Your task to perform on an android device: open chrome and create a bookmark for the current page Image 0: 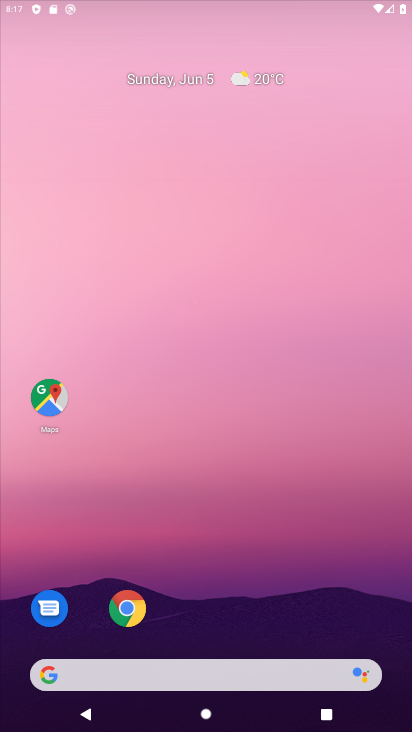
Step 0: press home button
Your task to perform on an android device: open chrome and create a bookmark for the current page Image 1: 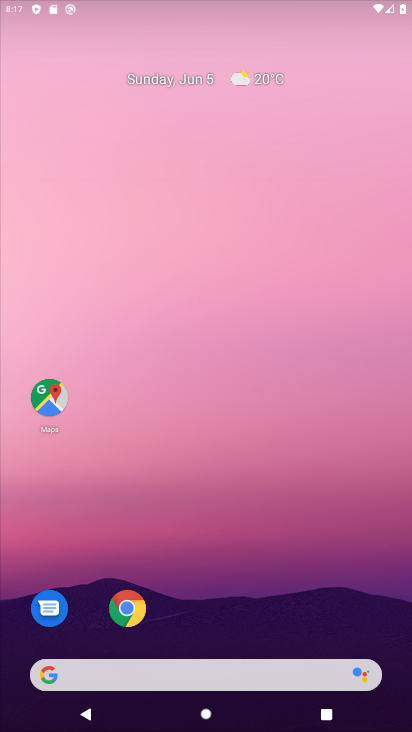
Step 1: click (296, 155)
Your task to perform on an android device: open chrome and create a bookmark for the current page Image 2: 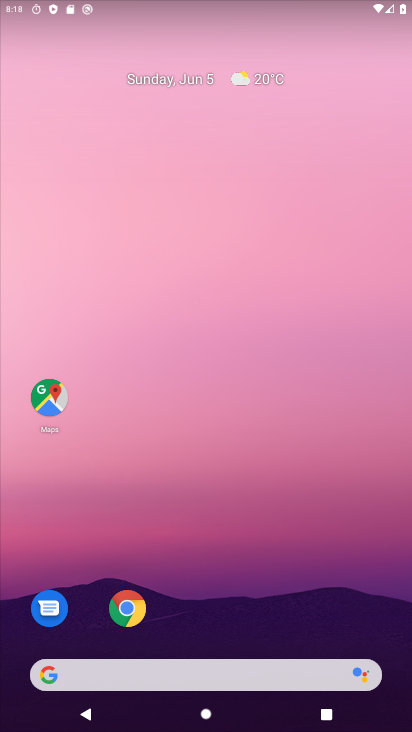
Step 2: drag from (369, 615) to (365, 97)
Your task to perform on an android device: open chrome and create a bookmark for the current page Image 3: 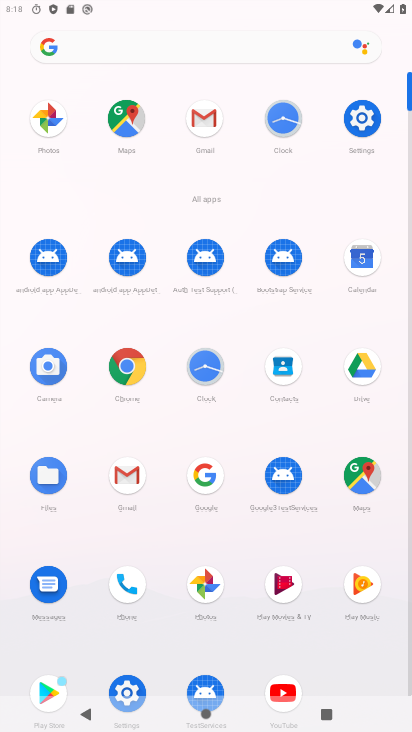
Step 3: click (127, 371)
Your task to perform on an android device: open chrome and create a bookmark for the current page Image 4: 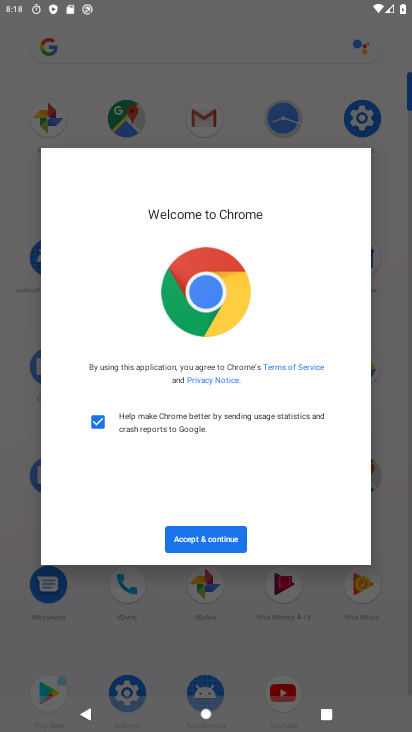
Step 4: click (191, 545)
Your task to perform on an android device: open chrome and create a bookmark for the current page Image 5: 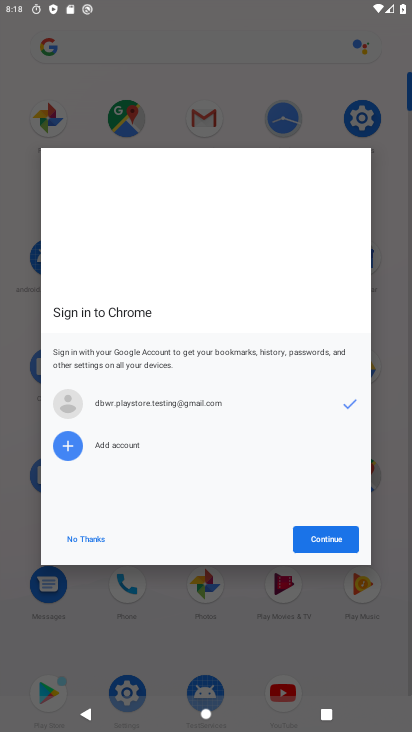
Step 5: click (328, 541)
Your task to perform on an android device: open chrome and create a bookmark for the current page Image 6: 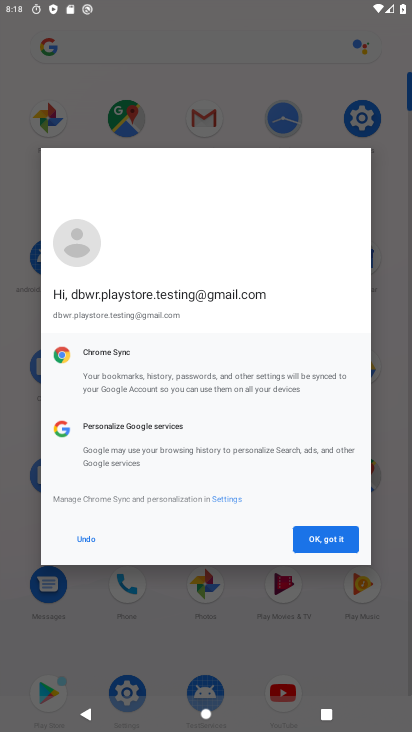
Step 6: click (329, 540)
Your task to perform on an android device: open chrome and create a bookmark for the current page Image 7: 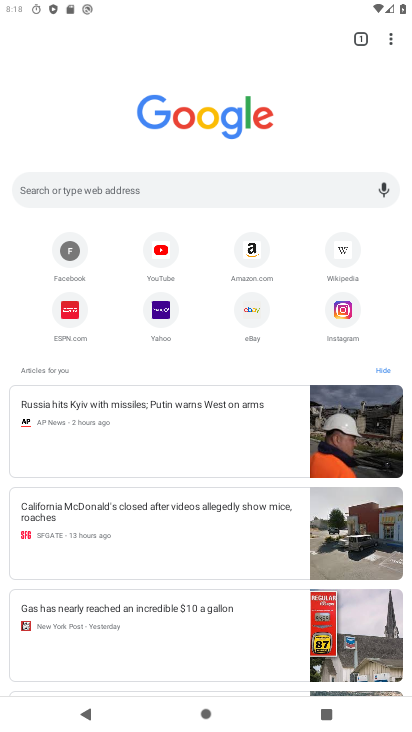
Step 7: click (115, 514)
Your task to perform on an android device: open chrome and create a bookmark for the current page Image 8: 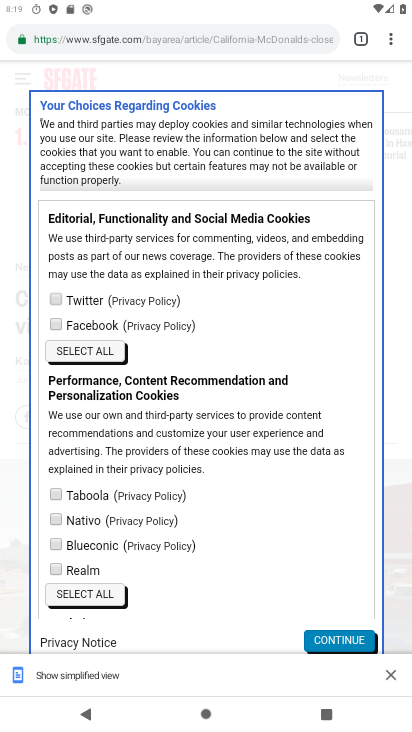
Step 8: task complete